Your task to perform on an android device: open app "Google Docs" Image 0: 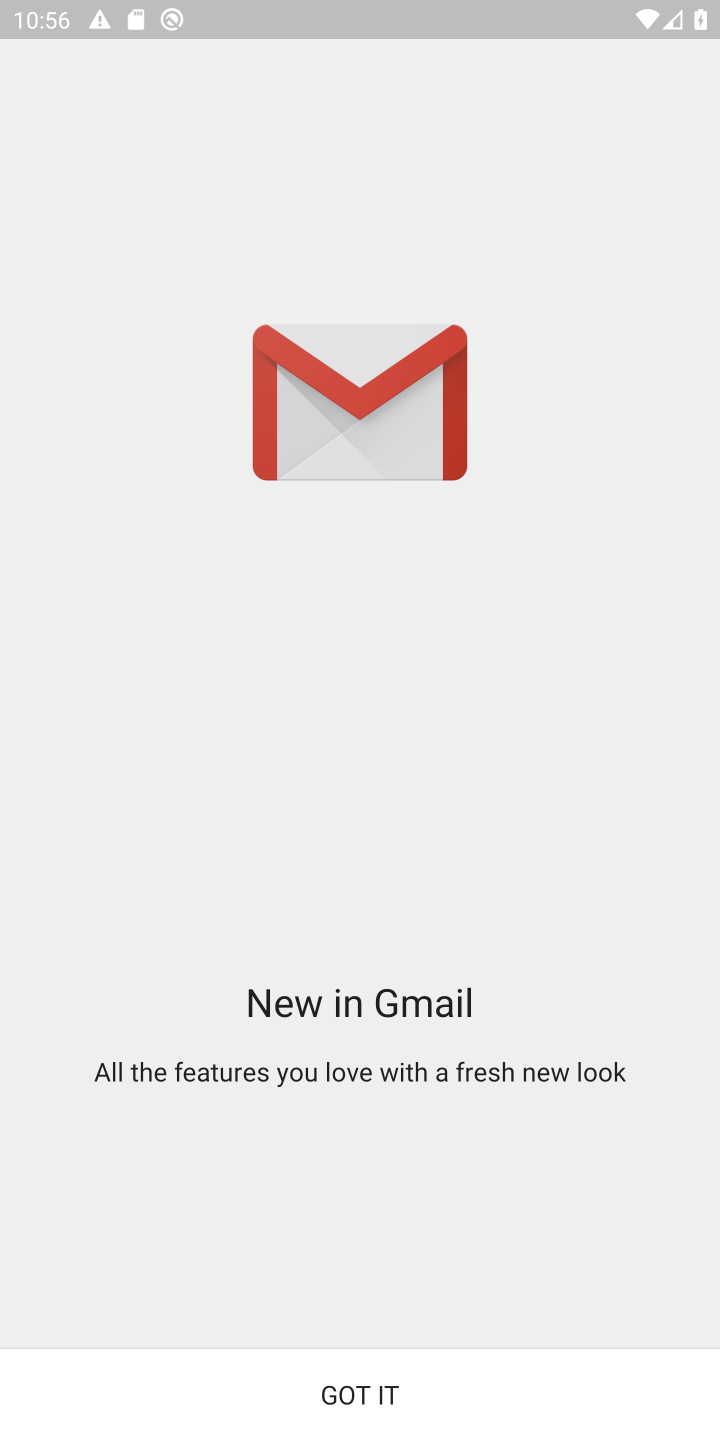
Step 0: press home button
Your task to perform on an android device: open app "Google Docs" Image 1: 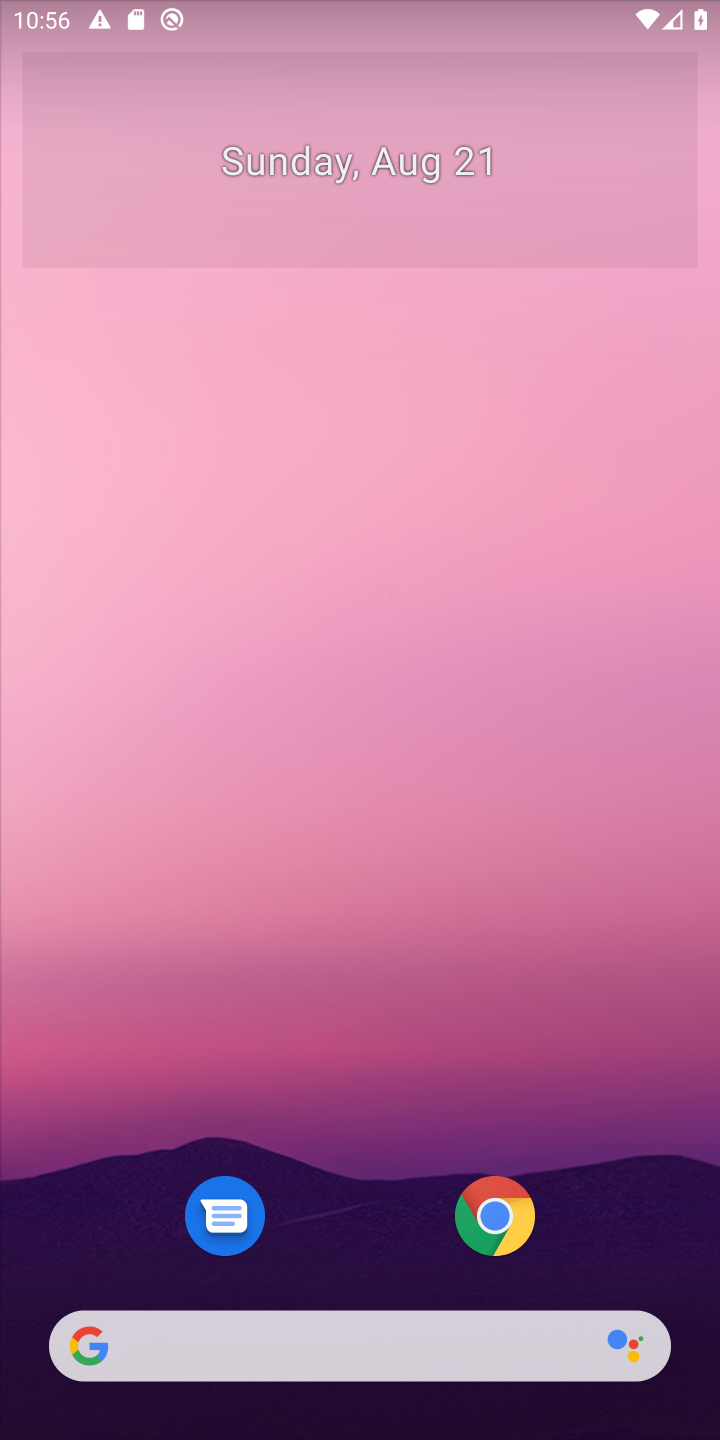
Step 1: drag from (428, 1238) to (332, 495)
Your task to perform on an android device: open app "Google Docs" Image 2: 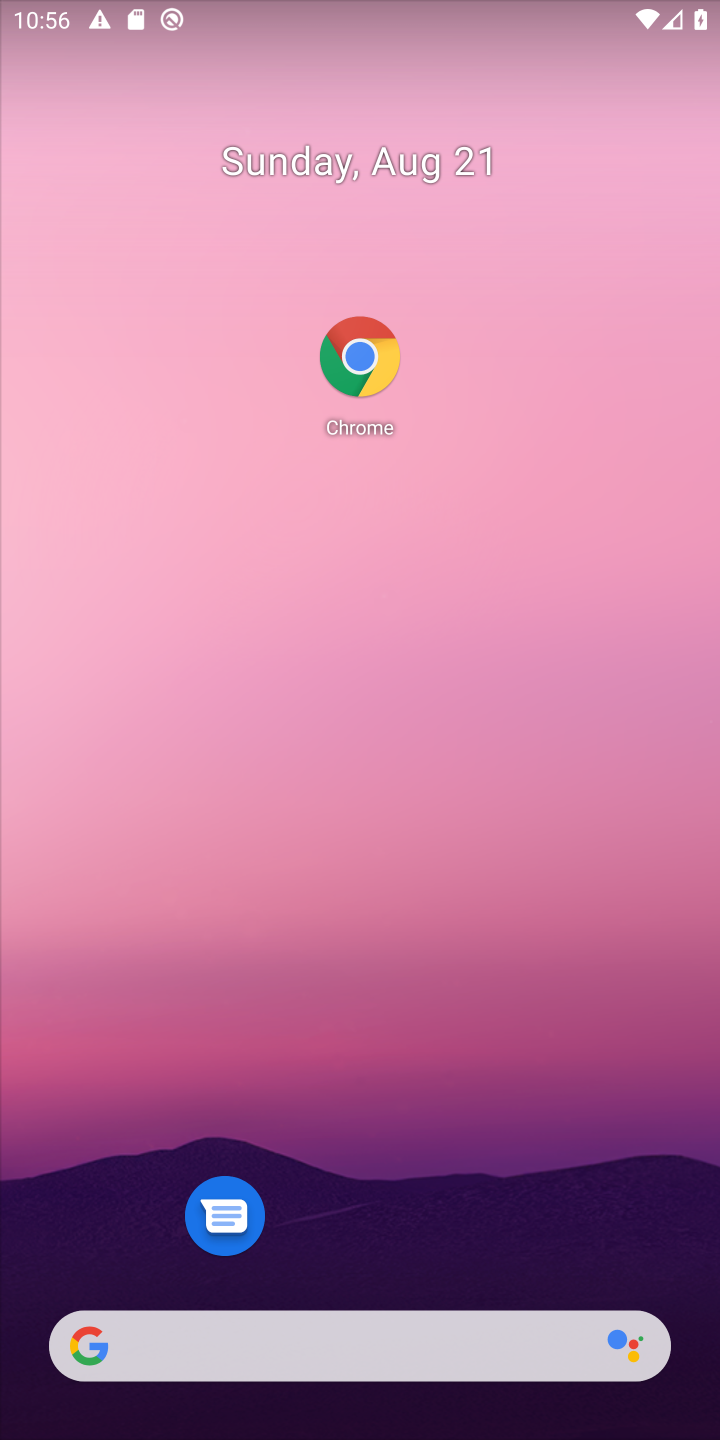
Step 2: drag from (407, 1375) to (357, 500)
Your task to perform on an android device: open app "Google Docs" Image 3: 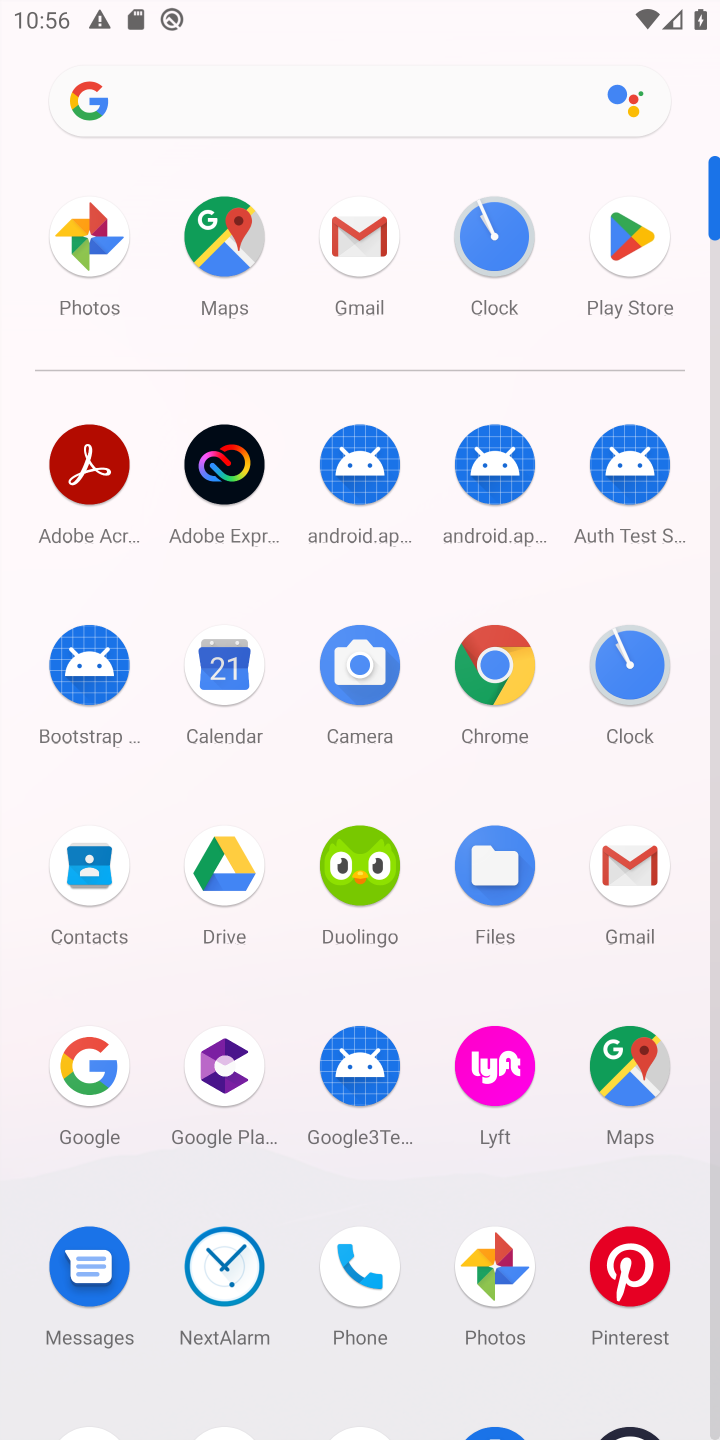
Step 3: click (621, 252)
Your task to perform on an android device: open app "Google Docs" Image 4: 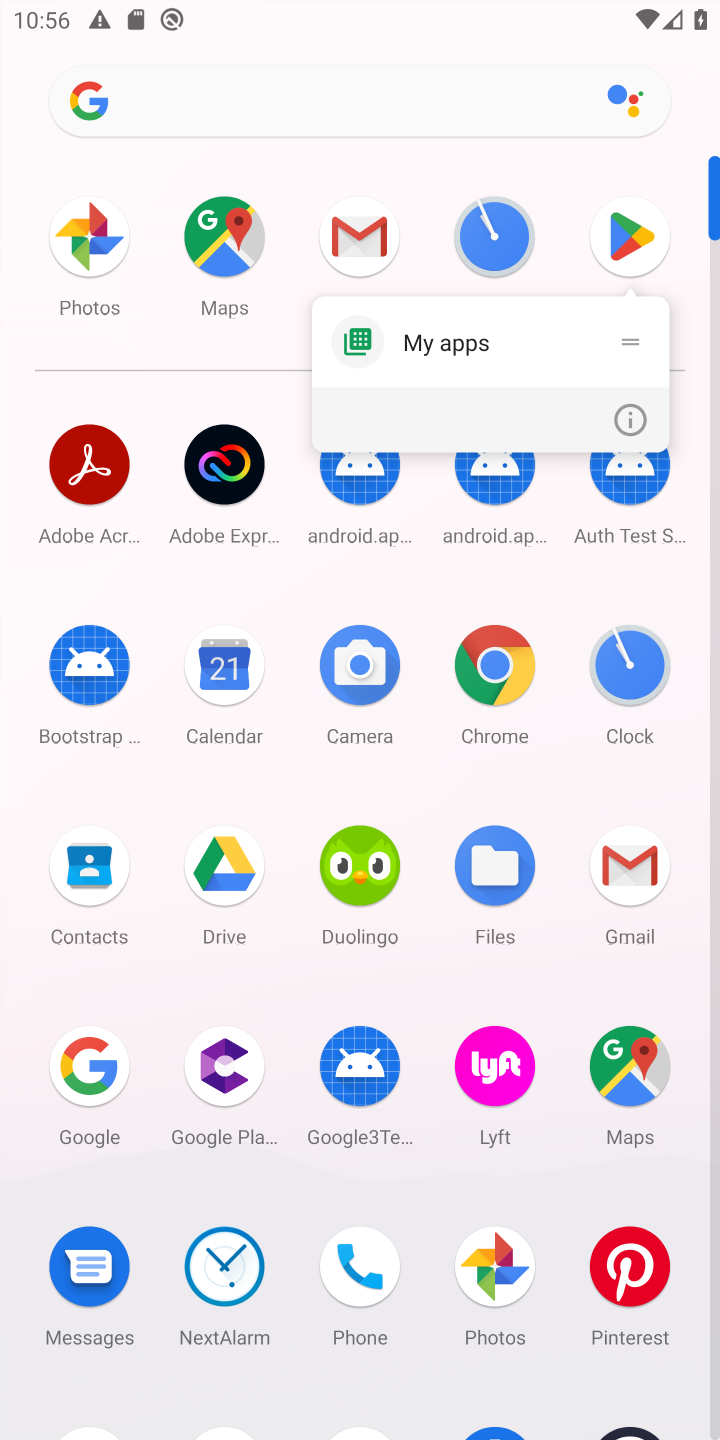
Step 4: click (621, 252)
Your task to perform on an android device: open app "Google Docs" Image 5: 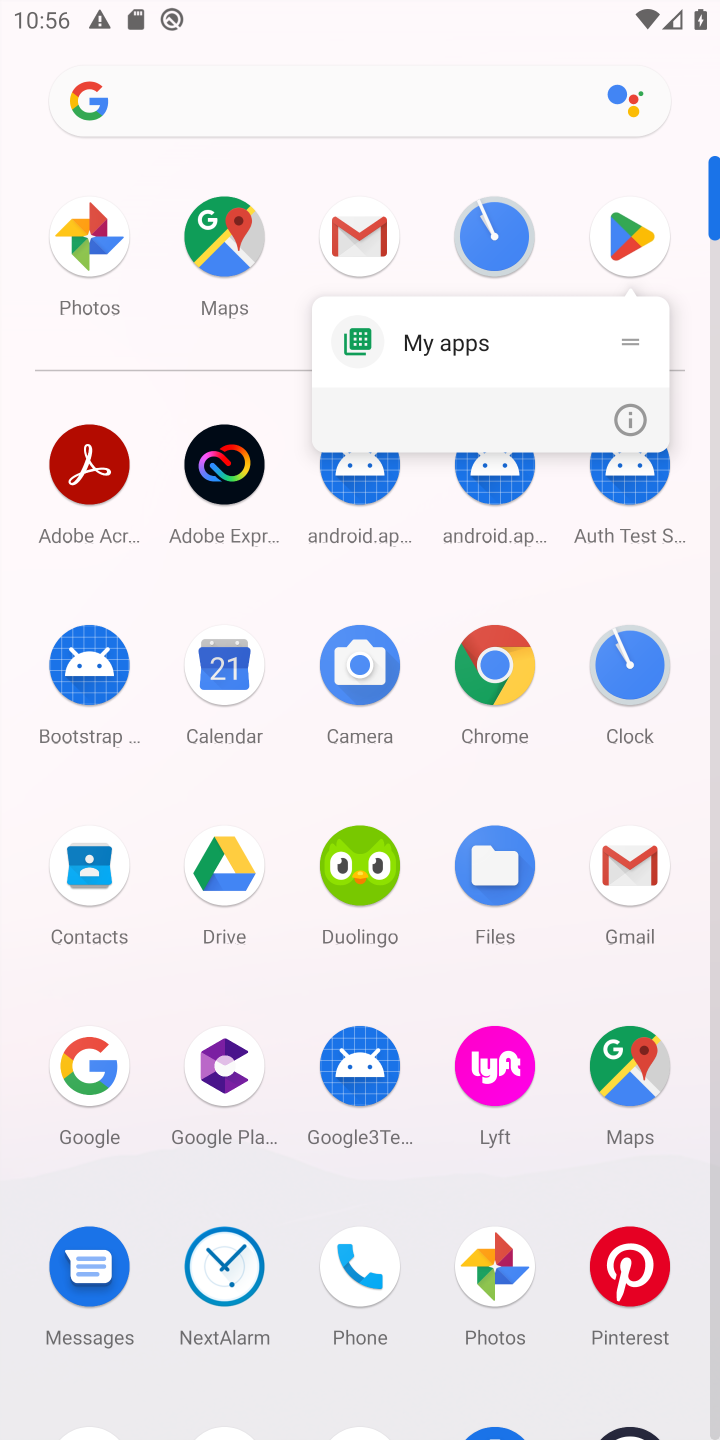
Step 5: click (619, 252)
Your task to perform on an android device: open app "Google Docs" Image 6: 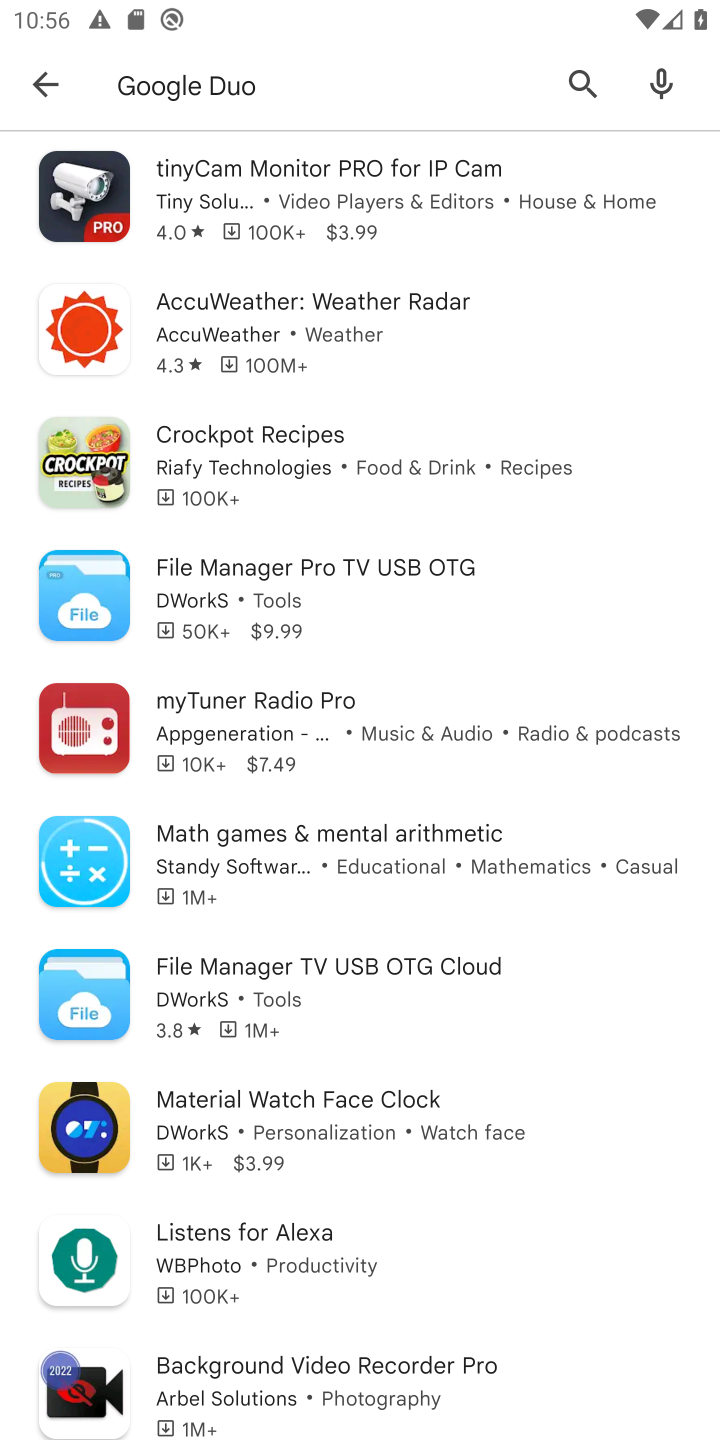
Step 6: press back button
Your task to perform on an android device: open app "Google Docs" Image 7: 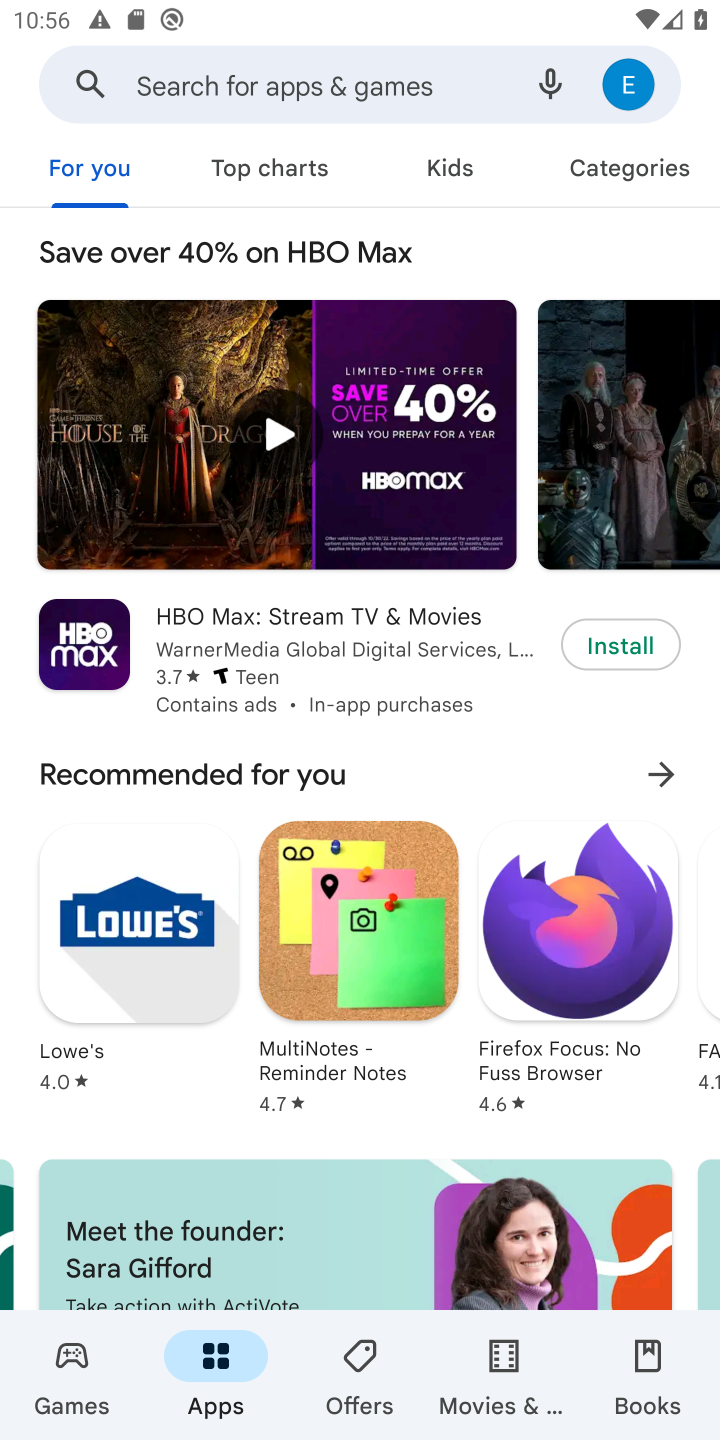
Step 7: click (189, 93)
Your task to perform on an android device: open app "Google Docs" Image 8: 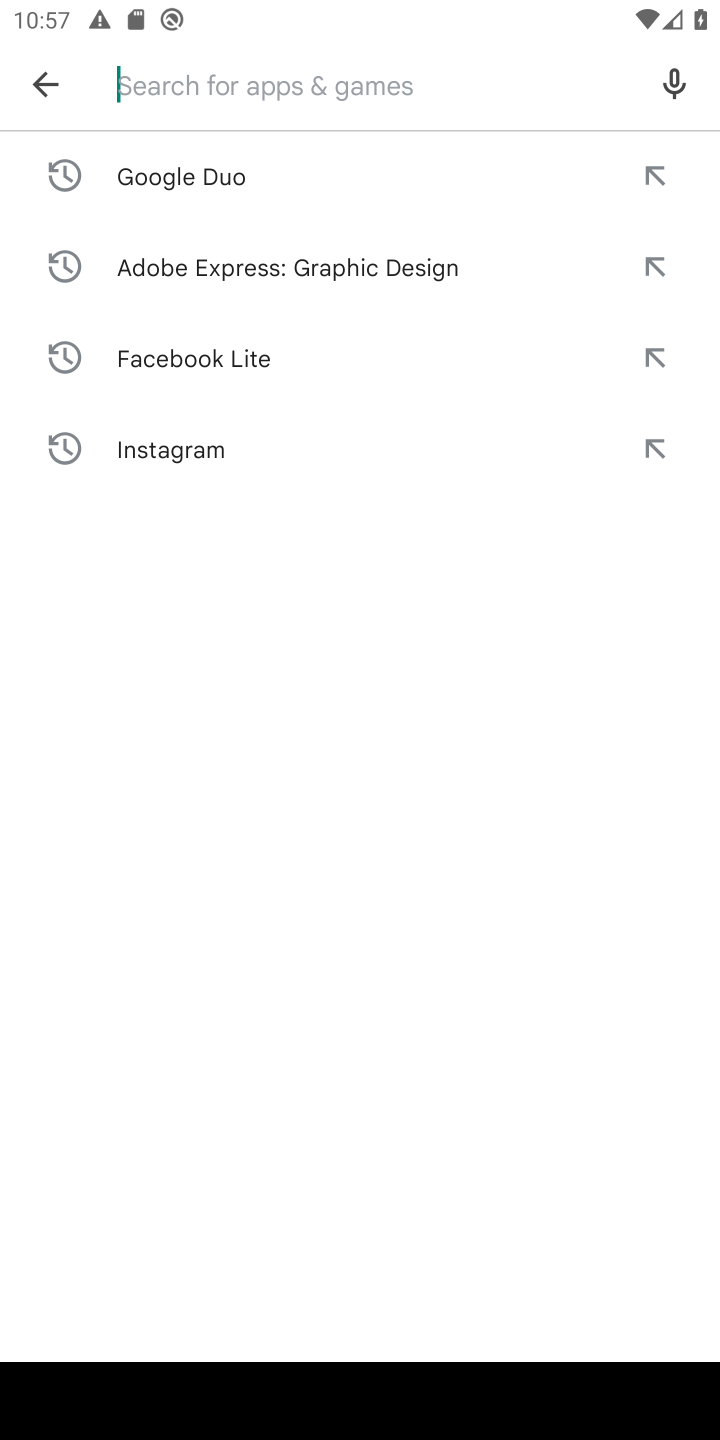
Step 8: type "Google Docs"
Your task to perform on an android device: open app "Google Docs" Image 9: 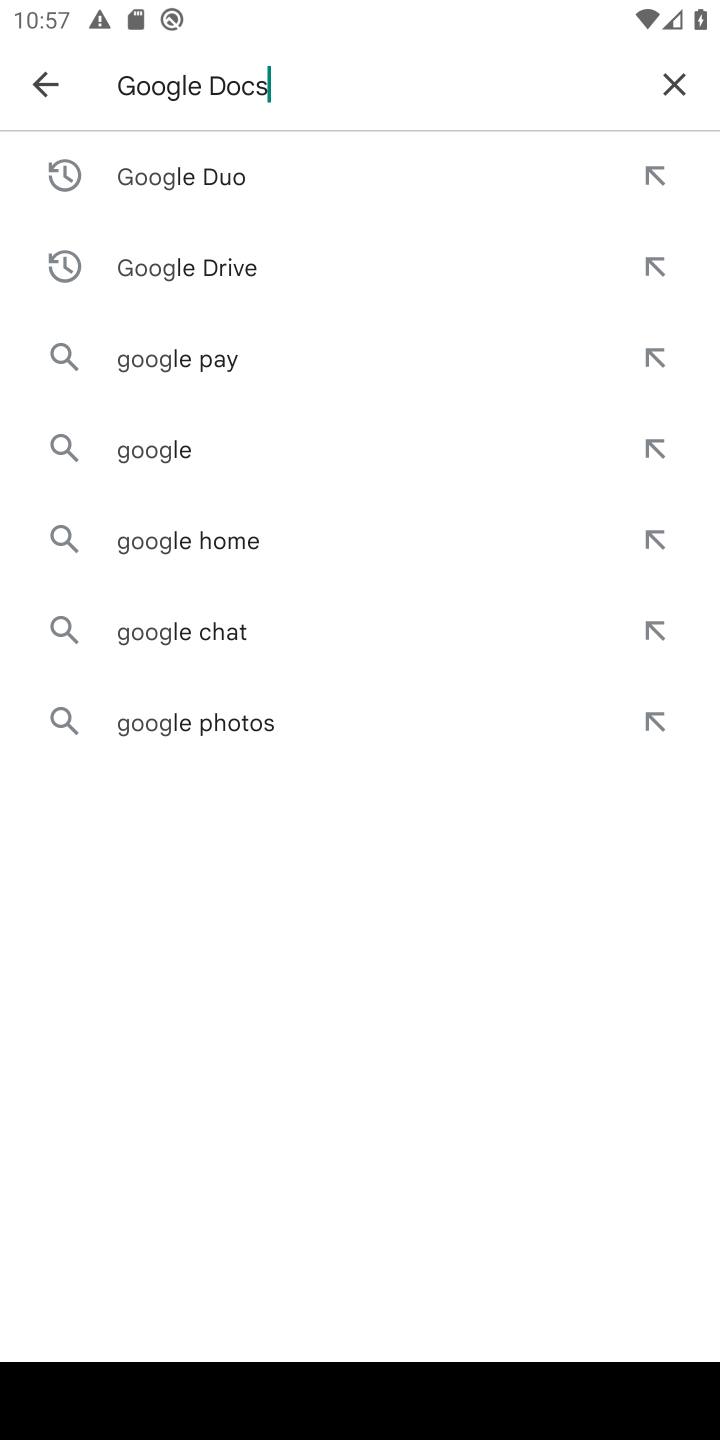
Step 9: press enter
Your task to perform on an android device: open app "Google Docs" Image 10: 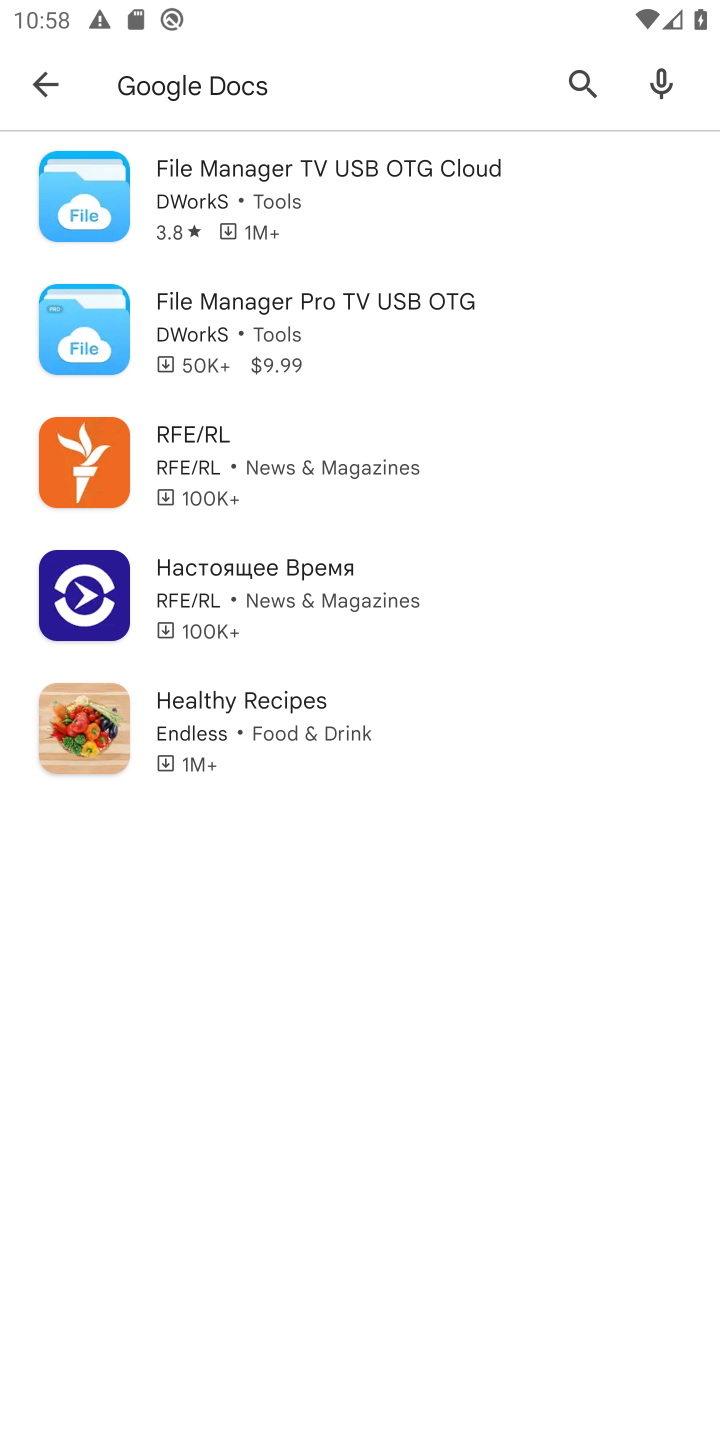
Step 10: task complete